Your task to perform on an android device: turn on improve location accuracy Image 0: 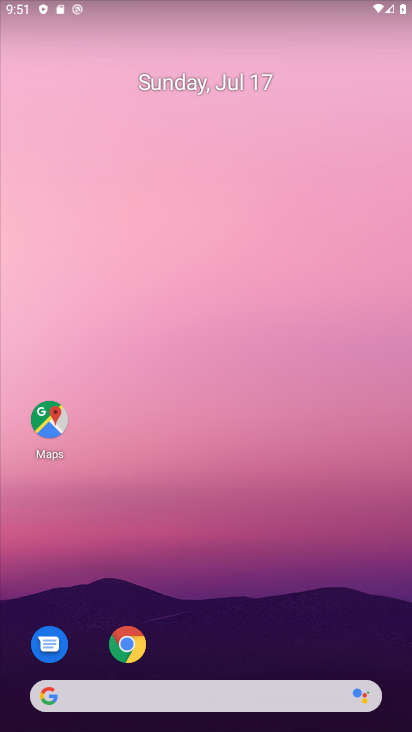
Step 0: drag from (263, 603) to (379, 33)
Your task to perform on an android device: turn on improve location accuracy Image 1: 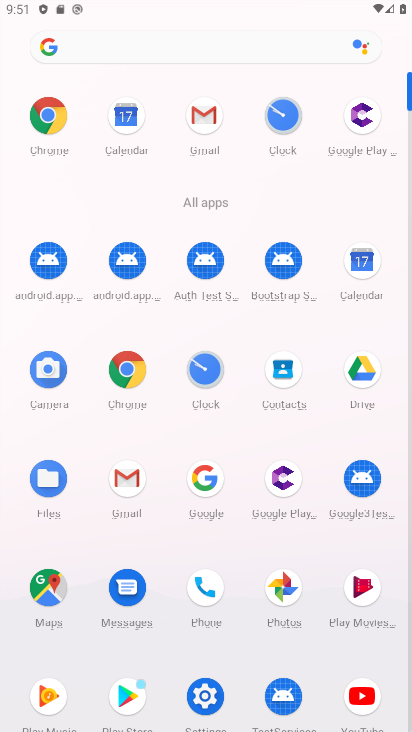
Step 1: click (211, 695)
Your task to perform on an android device: turn on improve location accuracy Image 2: 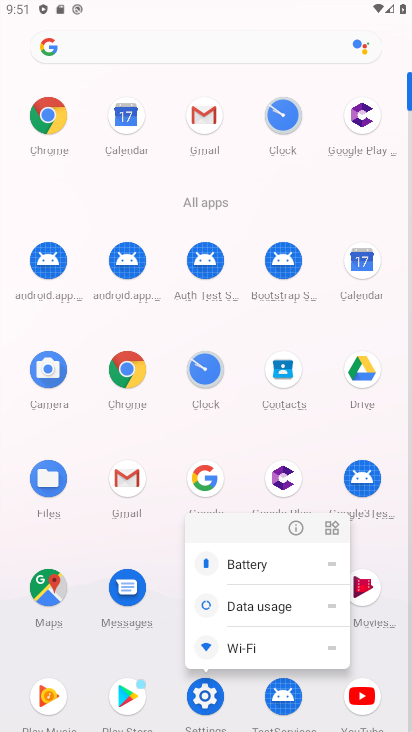
Step 2: click (211, 695)
Your task to perform on an android device: turn on improve location accuracy Image 3: 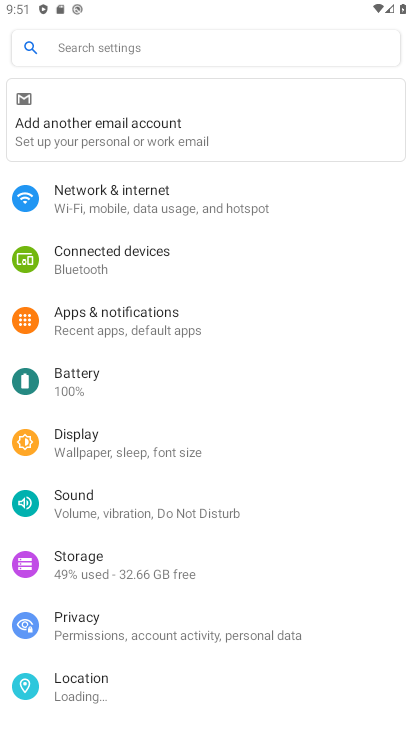
Step 3: click (151, 690)
Your task to perform on an android device: turn on improve location accuracy Image 4: 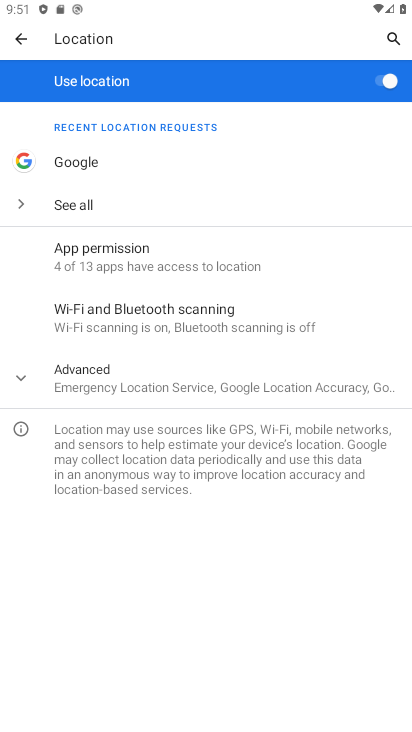
Step 4: click (128, 384)
Your task to perform on an android device: turn on improve location accuracy Image 5: 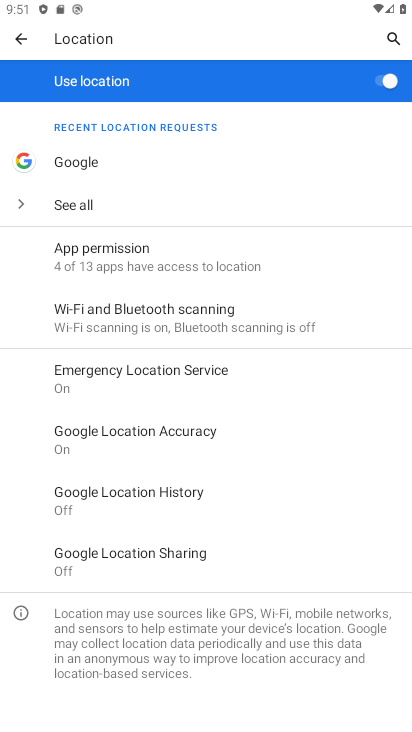
Step 5: click (148, 447)
Your task to perform on an android device: turn on improve location accuracy Image 6: 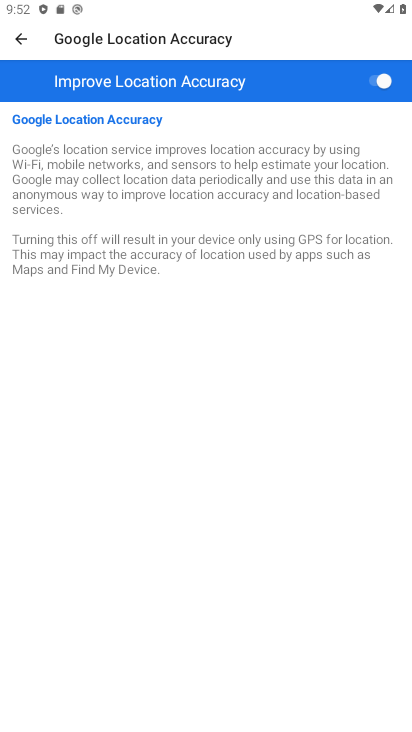
Step 6: task complete